Your task to perform on an android device: Open display settings Image 0: 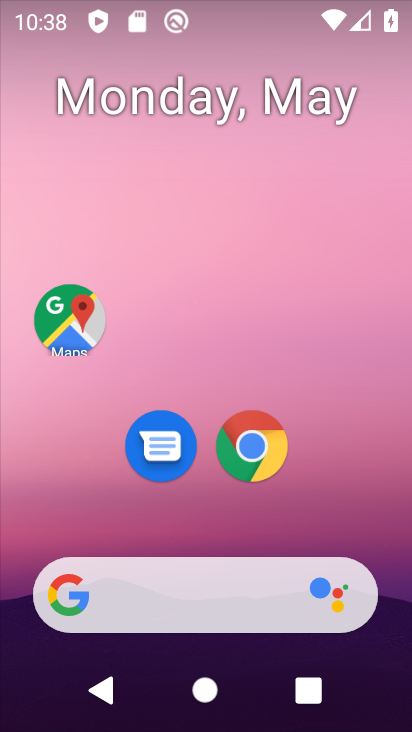
Step 0: drag from (336, 486) to (238, 95)
Your task to perform on an android device: Open display settings Image 1: 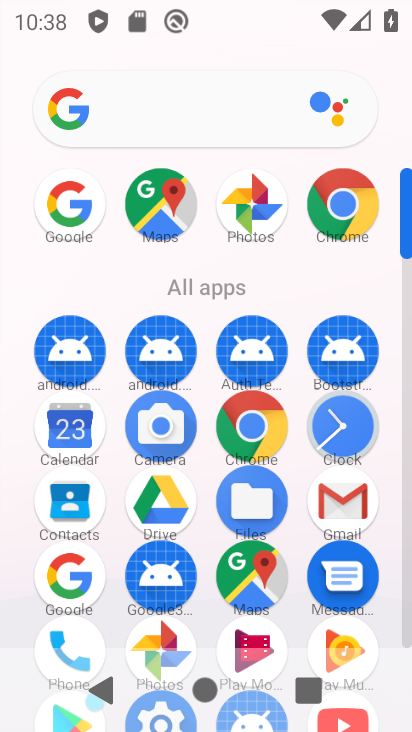
Step 1: drag from (392, 583) to (377, 103)
Your task to perform on an android device: Open display settings Image 2: 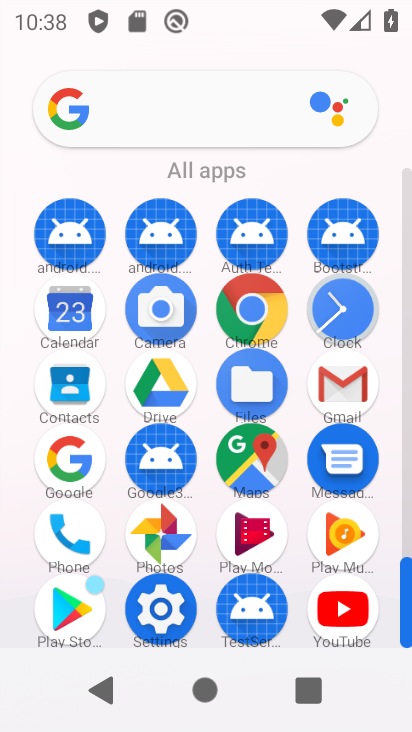
Step 2: click (166, 630)
Your task to perform on an android device: Open display settings Image 3: 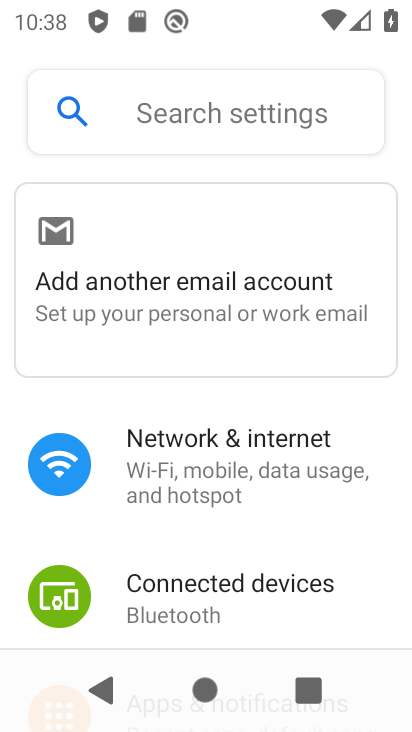
Step 3: drag from (256, 526) to (254, 24)
Your task to perform on an android device: Open display settings Image 4: 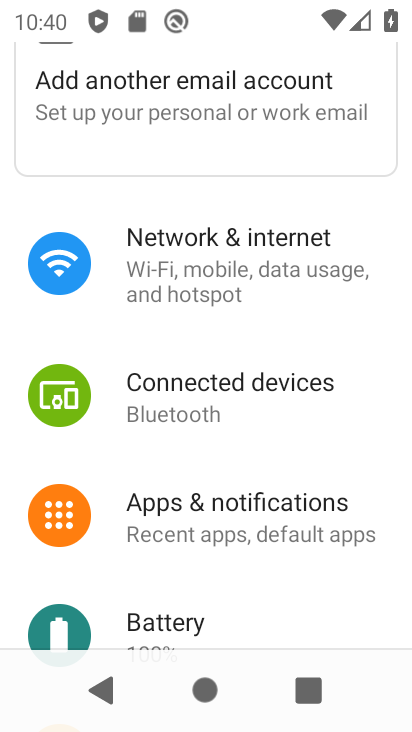
Step 4: drag from (186, 584) to (198, 164)
Your task to perform on an android device: Open display settings Image 5: 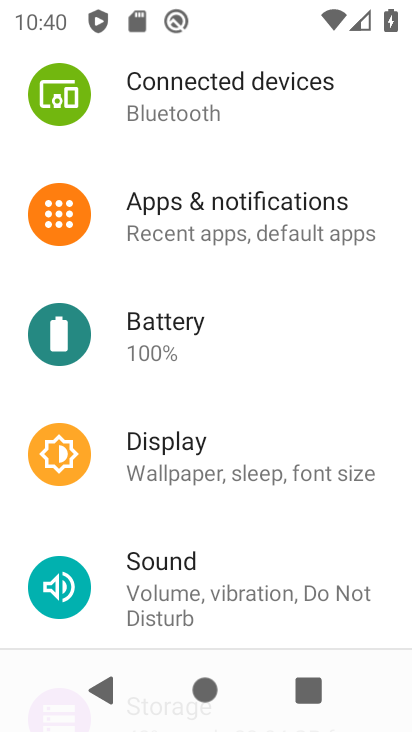
Step 5: click (189, 474)
Your task to perform on an android device: Open display settings Image 6: 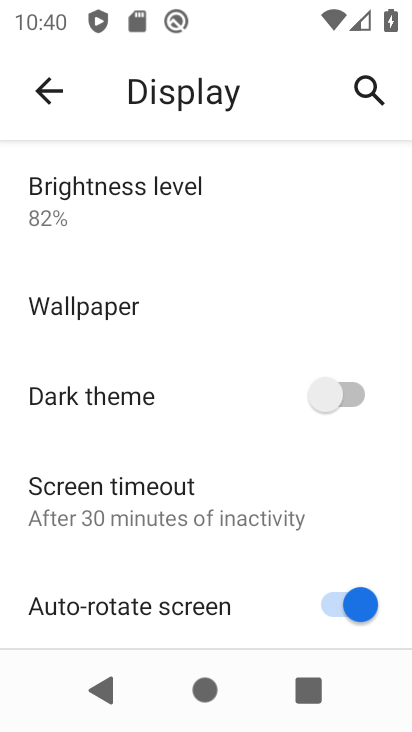
Step 6: task complete